Your task to perform on an android device: Open the stopwatch Image 0: 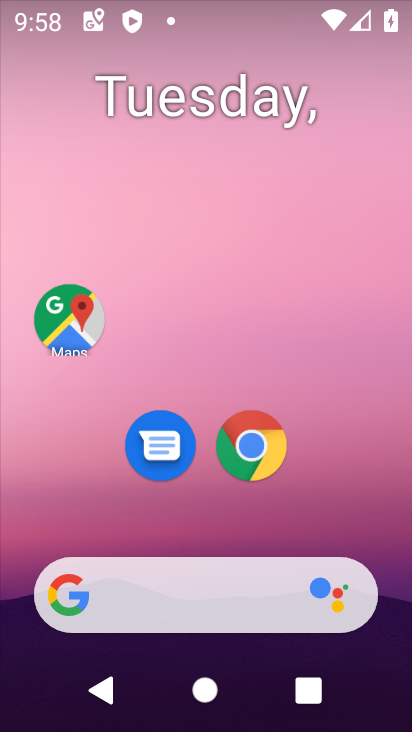
Step 0: drag from (403, 609) to (268, 207)
Your task to perform on an android device: Open the stopwatch Image 1: 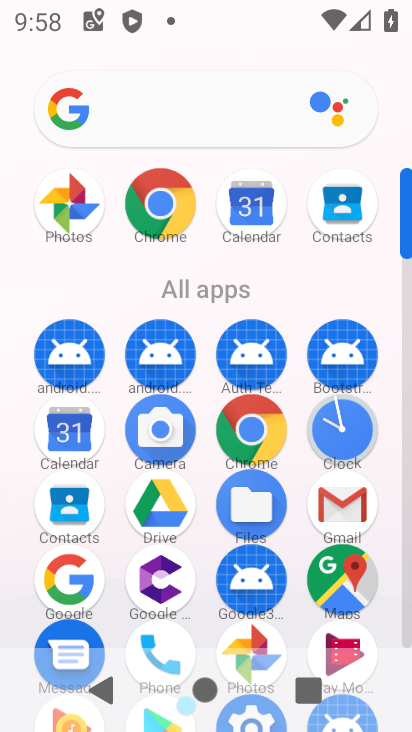
Step 1: click (347, 407)
Your task to perform on an android device: Open the stopwatch Image 2: 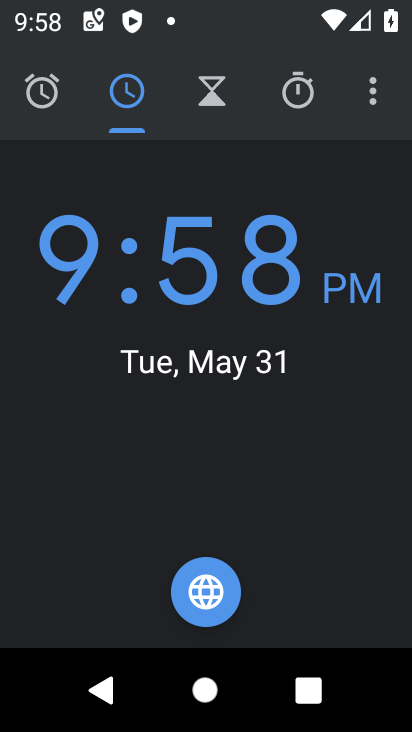
Step 2: click (290, 96)
Your task to perform on an android device: Open the stopwatch Image 3: 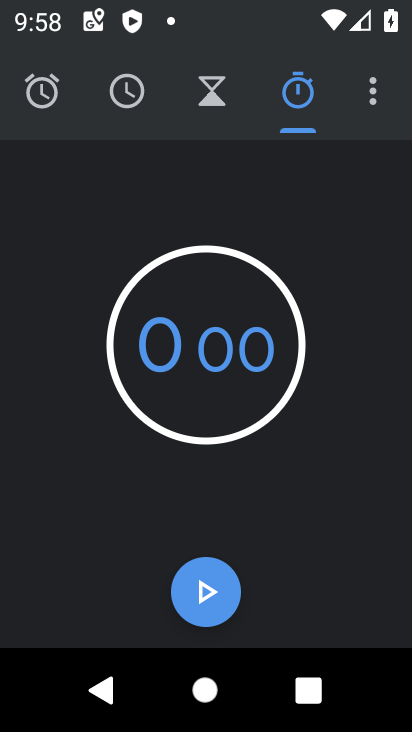
Step 3: task complete